Your task to perform on an android device: toggle airplane mode Image 0: 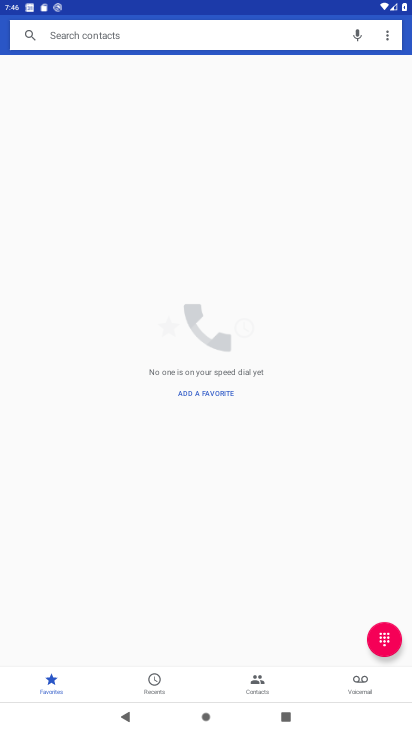
Step 0: press home button
Your task to perform on an android device: toggle airplane mode Image 1: 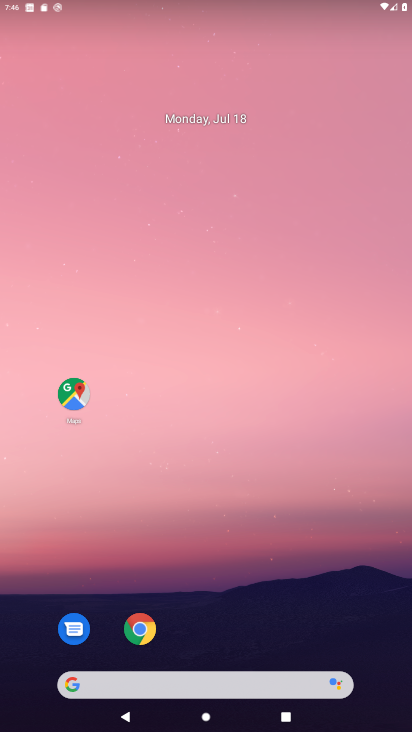
Step 1: drag from (364, 36) to (358, 572)
Your task to perform on an android device: toggle airplane mode Image 2: 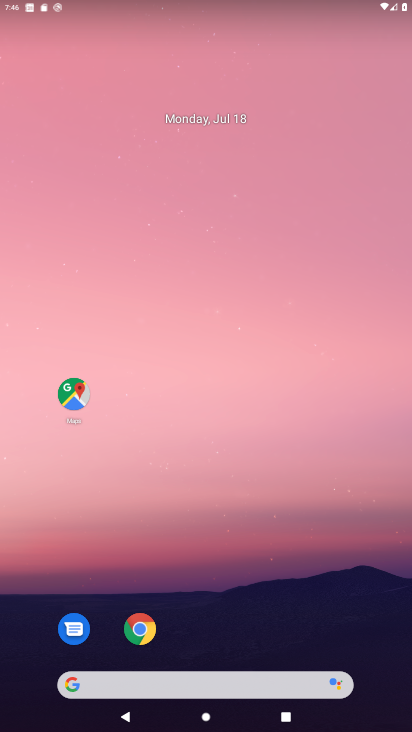
Step 2: drag from (356, 3) to (369, 460)
Your task to perform on an android device: toggle airplane mode Image 3: 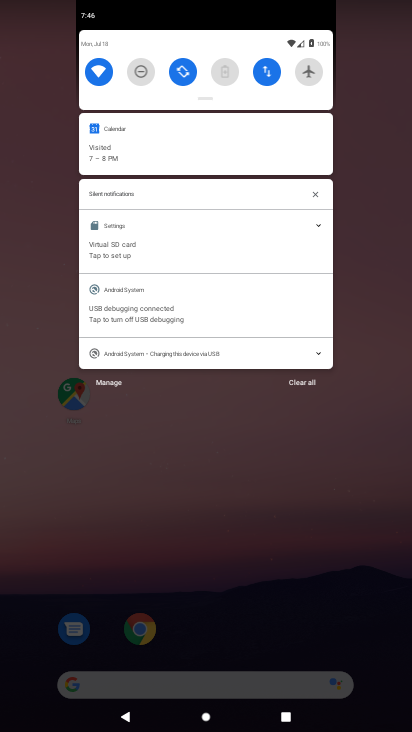
Step 3: click (310, 73)
Your task to perform on an android device: toggle airplane mode Image 4: 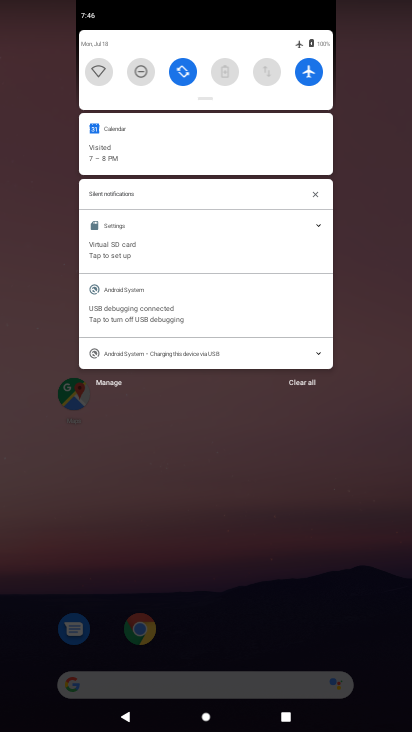
Step 4: task complete